Your task to perform on an android device: turn off improve location accuracy Image 0: 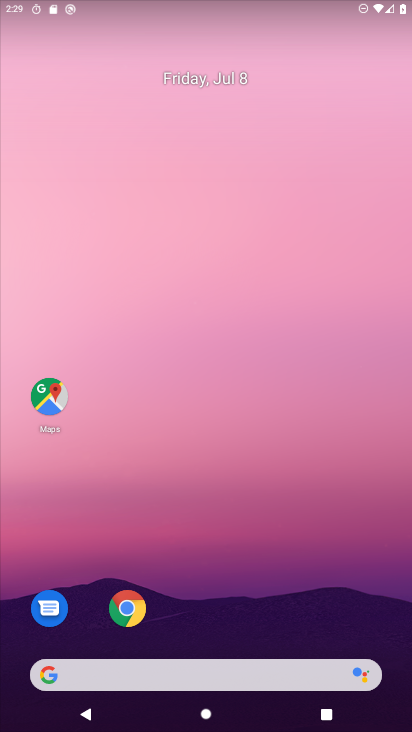
Step 0: drag from (262, 705) to (235, 88)
Your task to perform on an android device: turn off improve location accuracy Image 1: 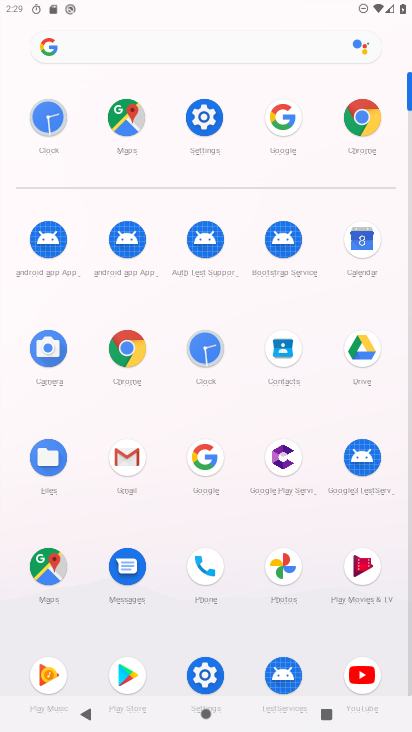
Step 1: click (216, 113)
Your task to perform on an android device: turn off improve location accuracy Image 2: 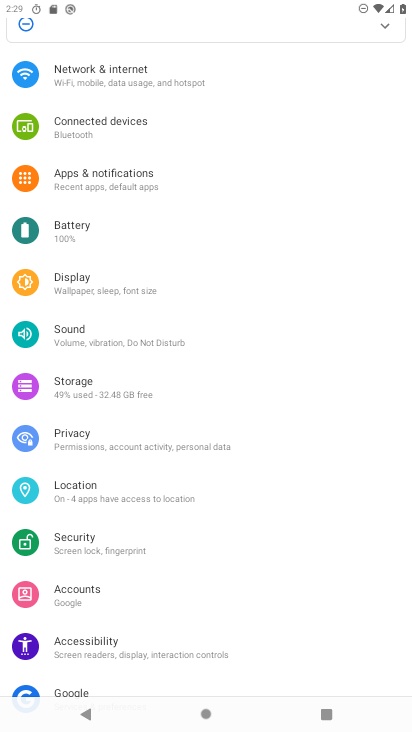
Step 2: click (87, 483)
Your task to perform on an android device: turn off improve location accuracy Image 3: 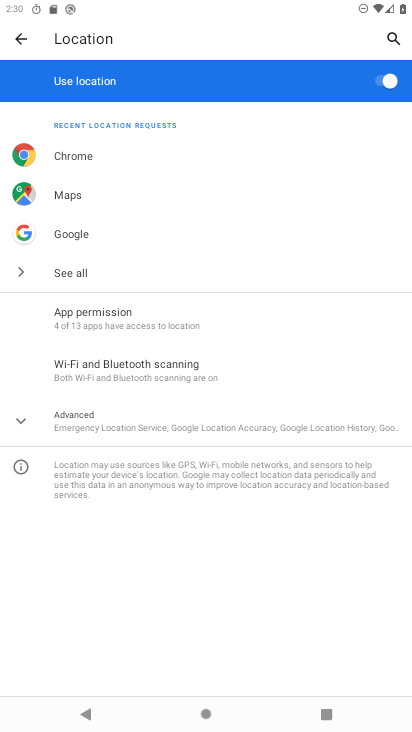
Step 3: click (99, 427)
Your task to perform on an android device: turn off improve location accuracy Image 4: 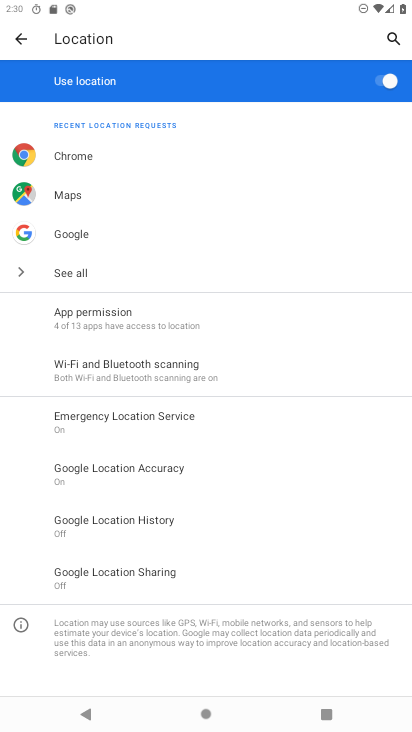
Step 4: click (129, 464)
Your task to perform on an android device: turn off improve location accuracy Image 5: 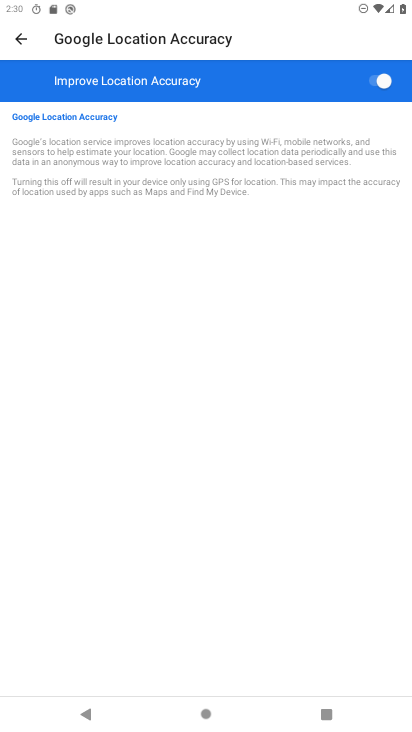
Step 5: click (375, 85)
Your task to perform on an android device: turn off improve location accuracy Image 6: 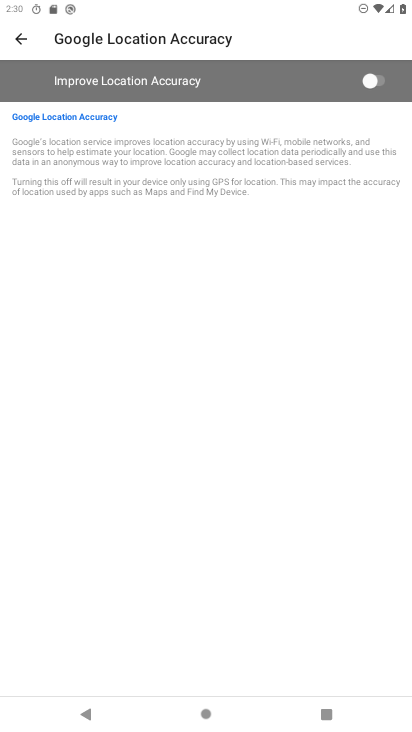
Step 6: task complete